Your task to perform on an android device: Open Youtube and go to the subscriptions tab Image 0: 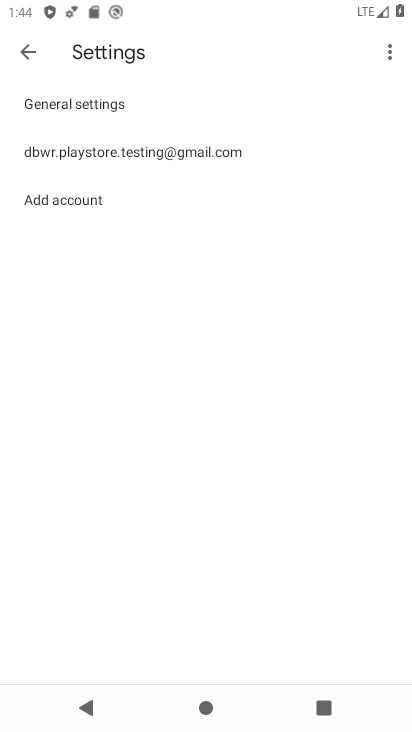
Step 0: press home button
Your task to perform on an android device: Open Youtube and go to the subscriptions tab Image 1: 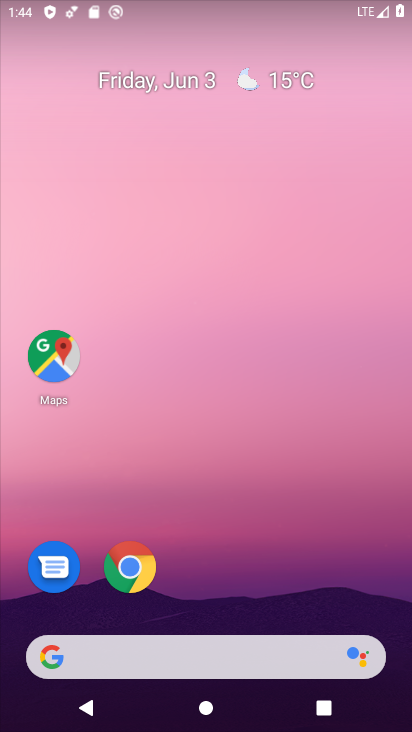
Step 1: drag from (171, 630) to (264, 34)
Your task to perform on an android device: Open Youtube and go to the subscriptions tab Image 2: 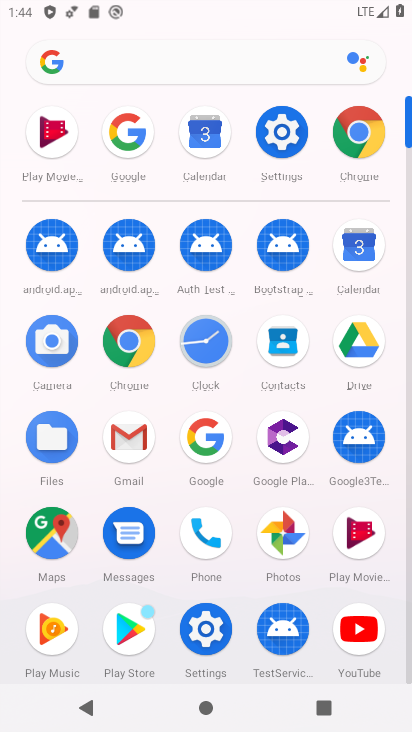
Step 2: click (372, 651)
Your task to perform on an android device: Open Youtube and go to the subscriptions tab Image 3: 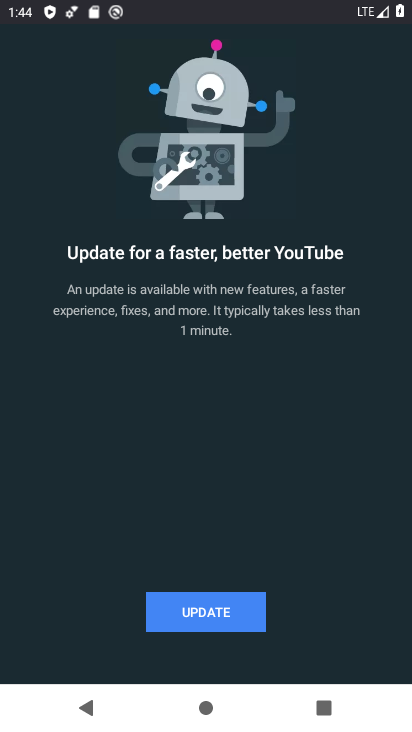
Step 3: click (207, 610)
Your task to perform on an android device: Open Youtube and go to the subscriptions tab Image 4: 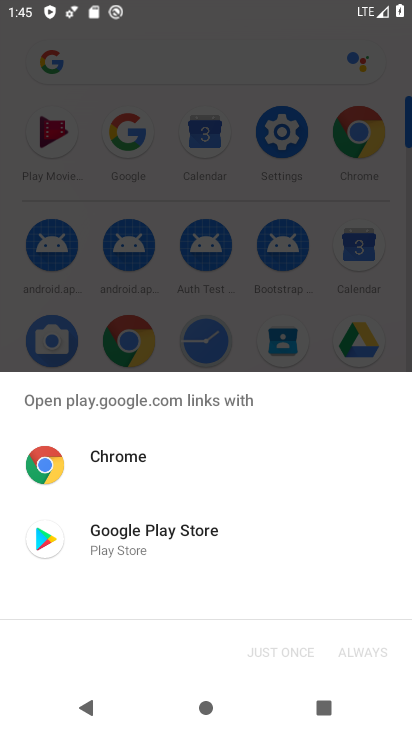
Step 4: click (203, 539)
Your task to perform on an android device: Open Youtube and go to the subscriptions tab Image 5: 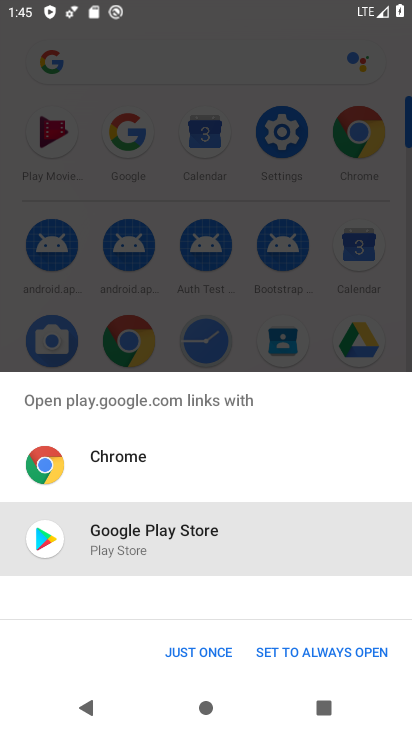
Step 5: click (305, 658)
Your task to perform on an android device: Open Youtube and go to the subscriptions tab Image 6: 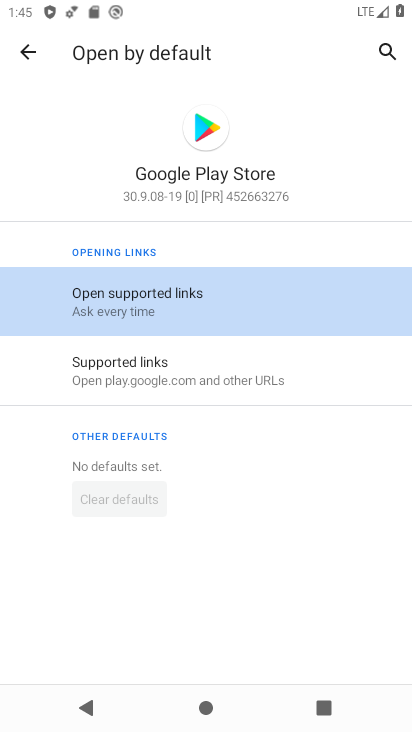
Step 6: click (162, 288)
Your task to perform on an android device: Open Youtube and go to the subscriptions tab Image 7: 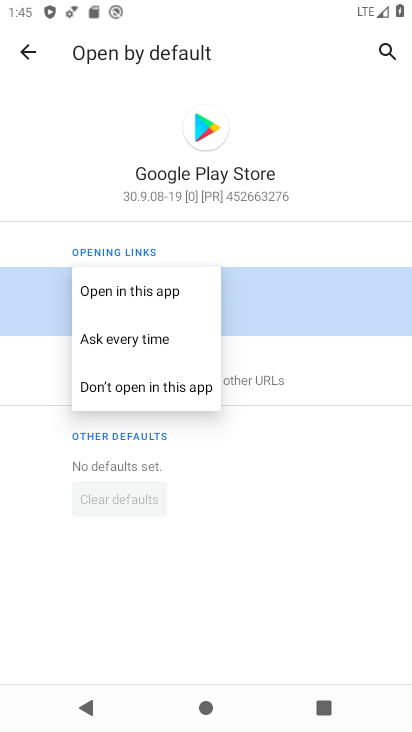
Step 7: click (222, 176)
Your task to perform on an android device: Open Youtube and go to the subscriptions tab Image 8: 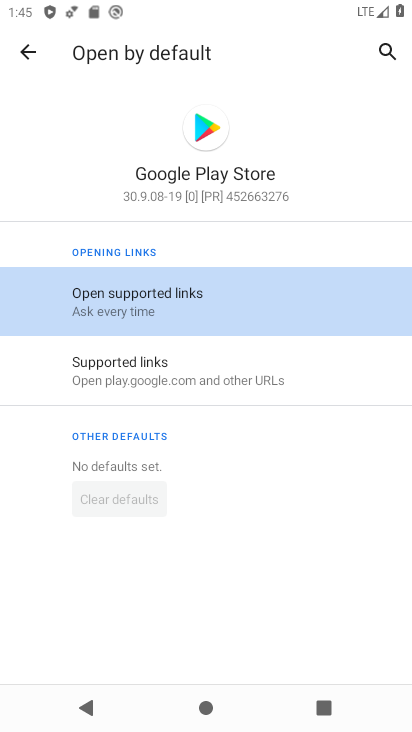
Step 8: click (222, 176)
Your task to perform on an android device: Open Youtube and go to the subscriptions tab Image 9: 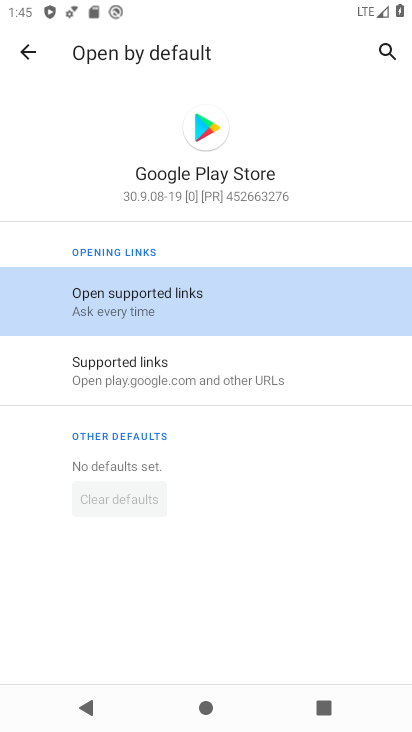
Step 9: click (222, 176)
Your task to perform on an android device: Open Youtube and go to the subscriptions tab Image 10: 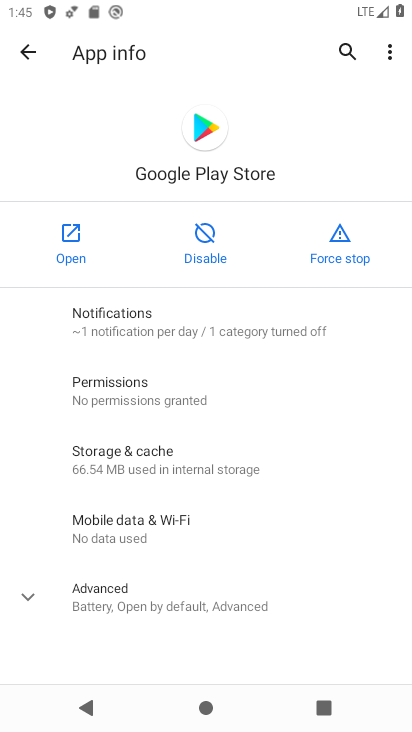
Step 10: click (69, 243)
Your task to perform on an android device: Open Youtube and go to the subscriptions tab Image 11: 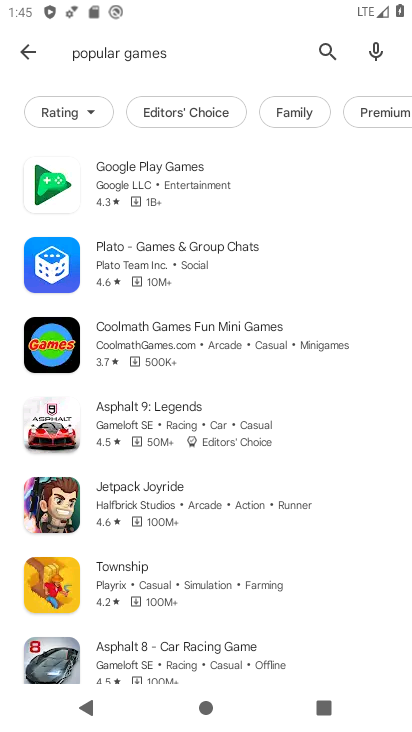
Step 11: click (331, 46)
Your task to perform on an android device: Open Youtube and go to the subscriptions tab Image 12: 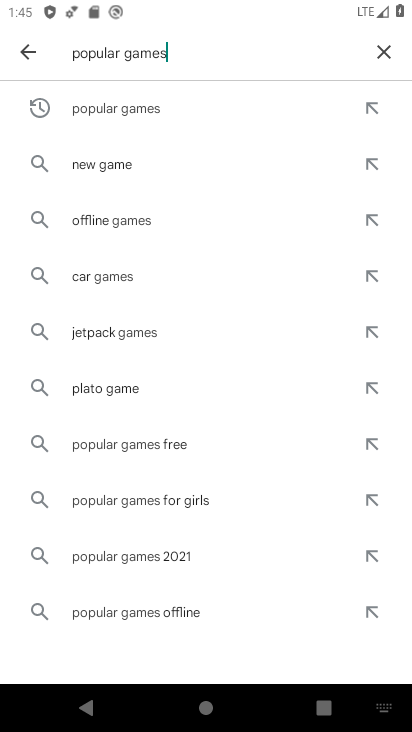
Step 12: click (386, 52)
Your task to perform on an android device: Open Youtube and go to the subscriptions tab Image 13: 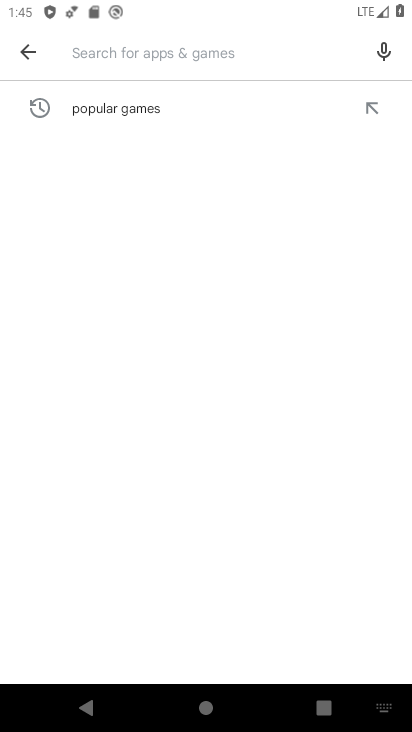
Step 13: type "youtube"
Your task to perform on an android device: Open Youtube and go to the subscriptions tab Image 14: 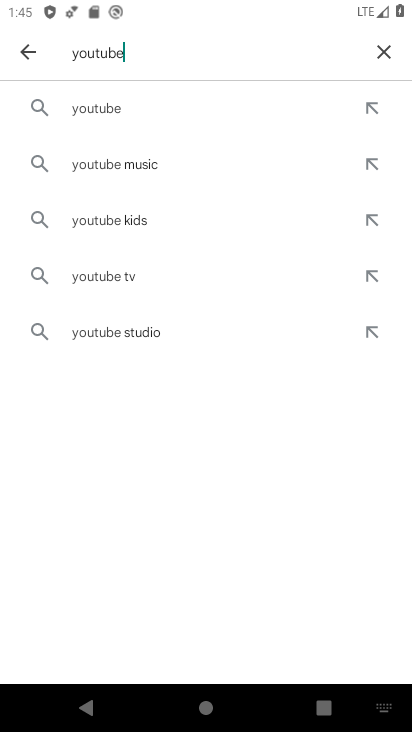
Step 14: click (112, 109)
Your task to perform on an android device: Open Youtube and go to the subscriptions tab Image 15: 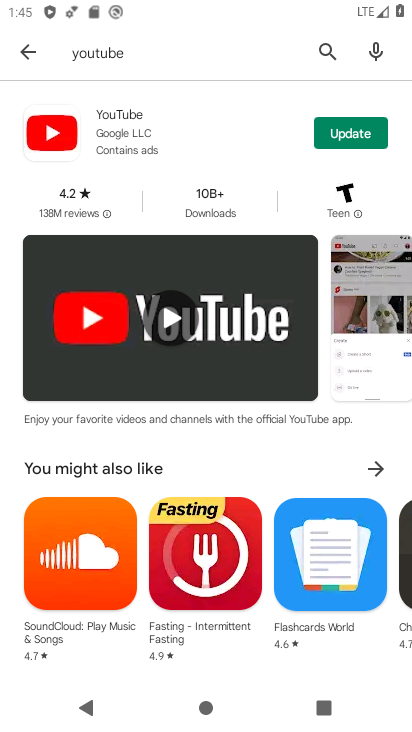
Step 15: click (332, 136)
Your task to perform on an android device: Open Youtube and go to the subscriptions tab Image 16: 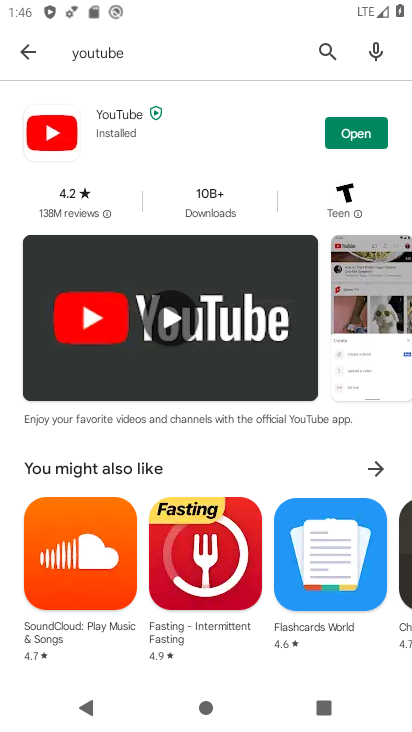
Step 16: click (373, 130)
Your task to perform on an android device: Open Youtube and go to the subscriptions tab Image 17: 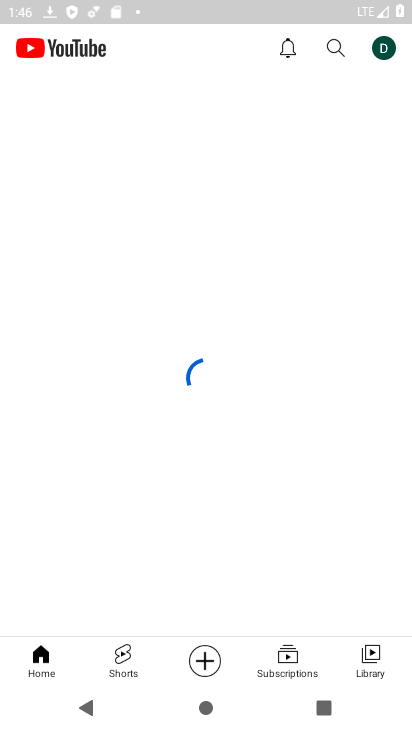
Step 17: click (288, 659)
Your task to perform on an android device: Open Youtube and go to the subscriptions tab Image 18: 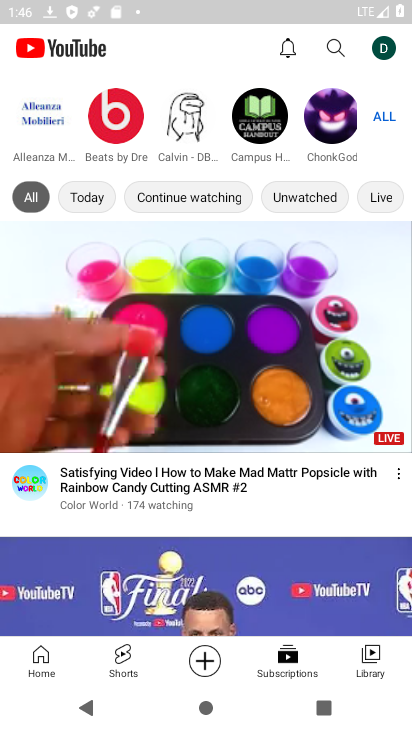
Step 18: task complete